Your task to perform on an android device: move an email to a new category in the gmail app Image 0: 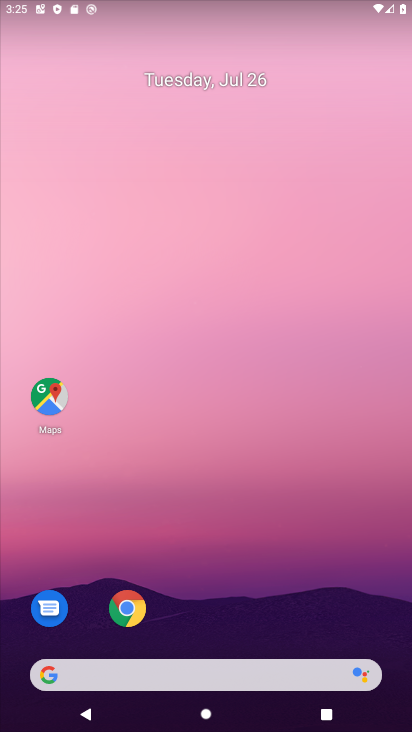
Step 0: drag from (203, 599) to (357, 86)
Your task to perform on an android device: move an email to a new category in the gmail app Image 1: 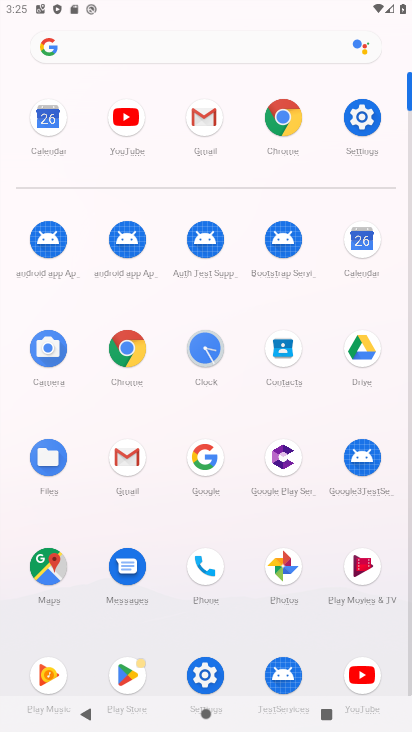
Step 1: click (129, 456)
Your task to perform on an android device: move an email to a new category in the gmail app Image 2: 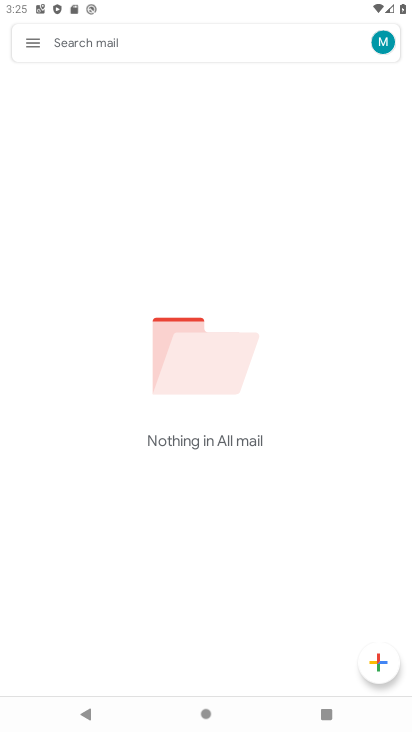
Step 2: task complete